Your task to perform on an android device: Add macbook to the cart on target Image 0: 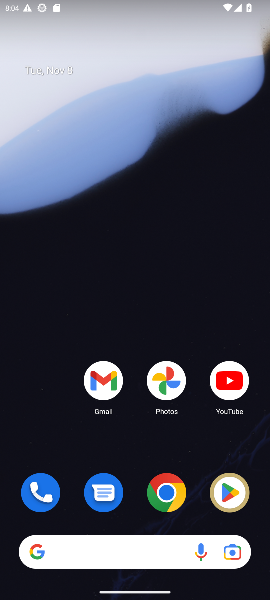
Step 0: click (160, 501)
Your task to perform on an android device: Add macbook to the cart on target Image 1: 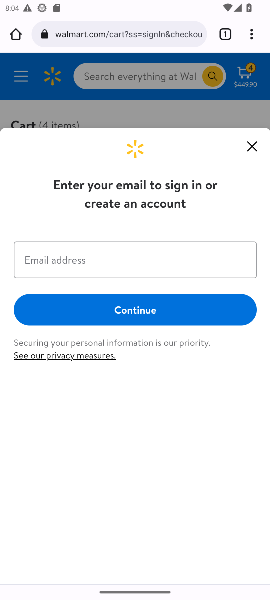
Step 1: click (121, 32)
Your task to perform on an android device: Add macbook to the cart on target Image 2: 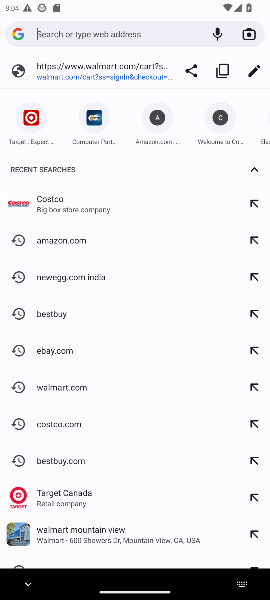
Step 2: type "target.com"
Your task to perform on an android device: Add macbook to the cart on target Image 3: 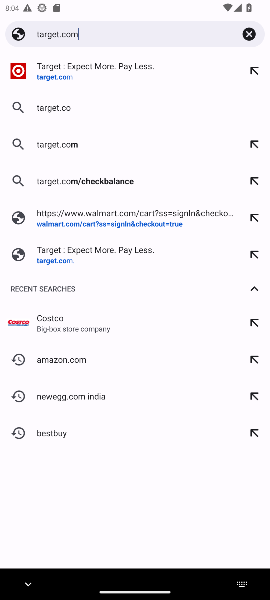
Step 3: press enter
Your task to perform on an android device: Add macbook to the cart on target Image 4: 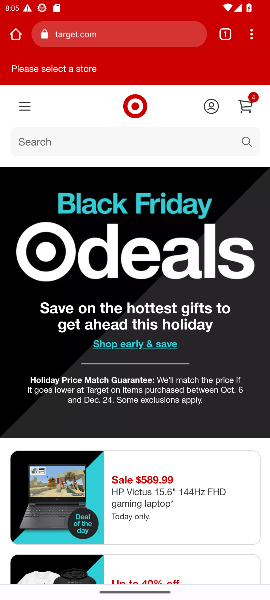
Step 4: click (117, 152)
Your task to perform on an android device: Add macbook to the cart on target Image 5: 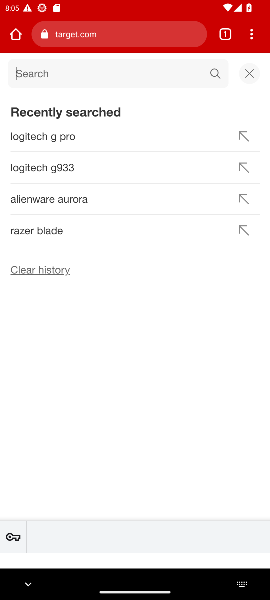
Step 5: type "macbook"
Your task to perform on an android device: Add macbook to the cart on target Image 6: 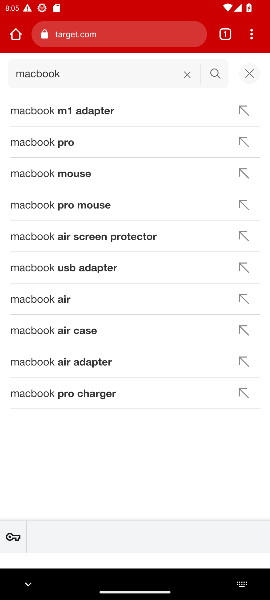
Step 6: press enter
Your task to perform on an android device: Add macbook to the cart on target Image 7: 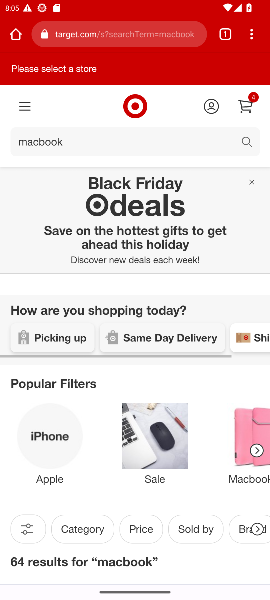
Step 7: drag from (187, 281) to (200, 113)
Your task to perform on an android device: Add macbook to the cart on target Image 8: 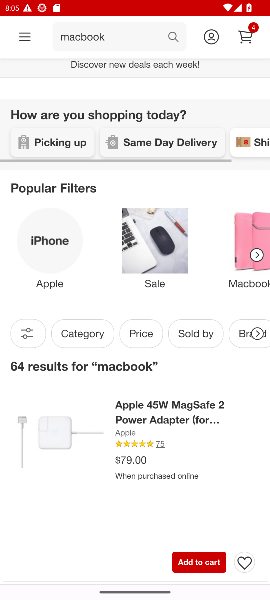
Step 8: click (196, 565)
Your task to perform on an android device: Add macbook to the cart on target Image 9: 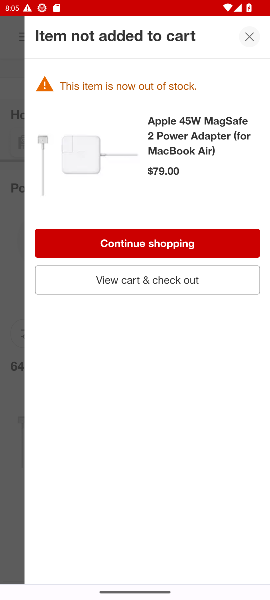
Step 9: click (153, 284)
Your task to perform on an android device: Add macbook to the cart on target Image 10: 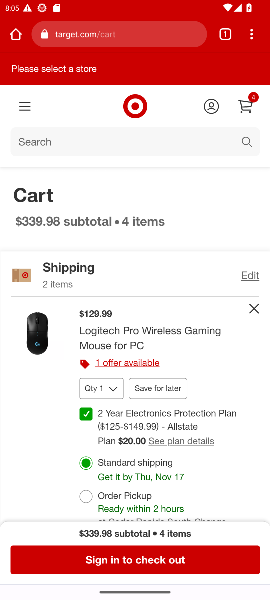
Step 10: task complete